Your task to perform on an android device: Go to display settings Image 0: 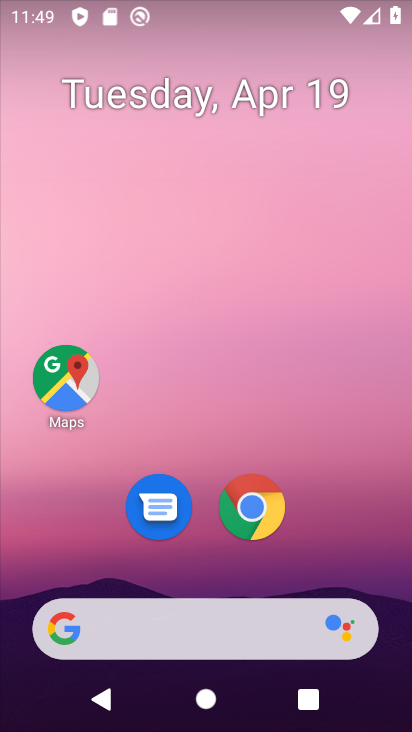
Step 0: drag from (387, 515) to (379, 121)
Your task to perform on an android device: Go to display settings Image 1: 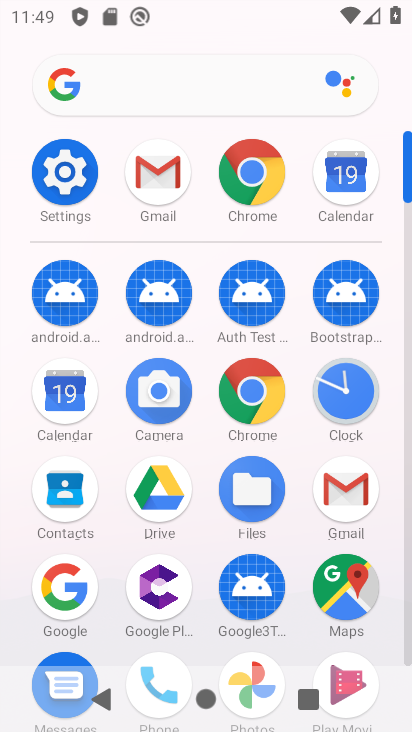
Step 1: click (68, 176)
Your task to perform on an android device: Go to display settings Image 2: 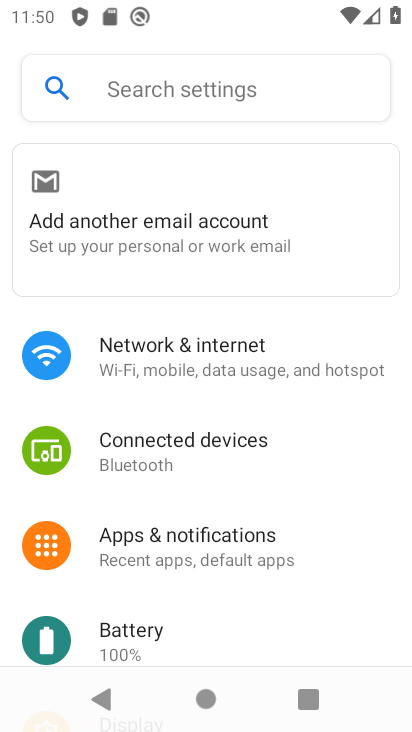
Step 2: drag from (344, 576) to (342, 254)
Your task to perform on an android device: Go to display settings Image 3: 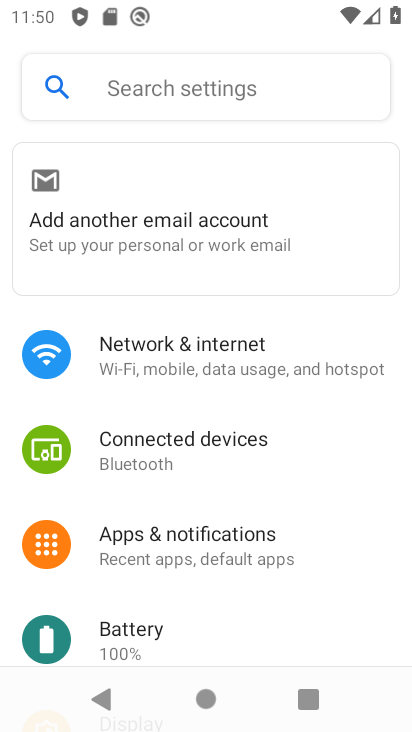
Step 3: drag from (323, 587) to (327, 297)
Your task to perform on an android device: Go to display settings Image 4: 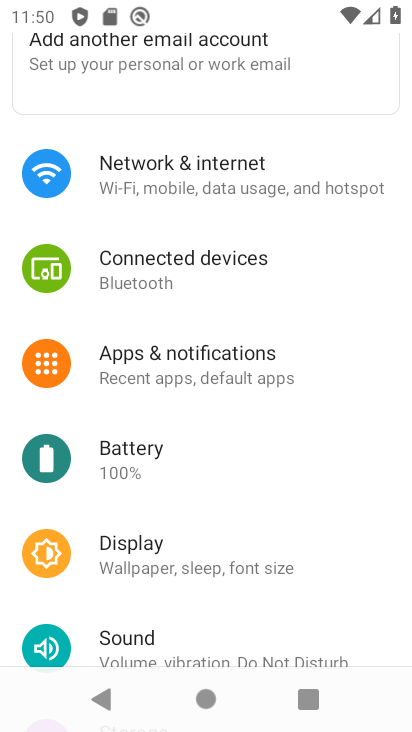
Step 4: click (226, 569)
Your task to perform on an android device: Go to display settings Image 5: 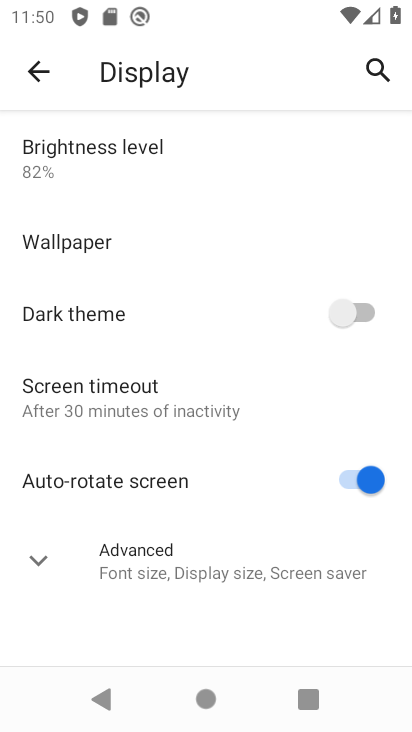
Step 5: task complete